Your task to perform on an android device: Show me productivity apps on the Play Store Image 0: 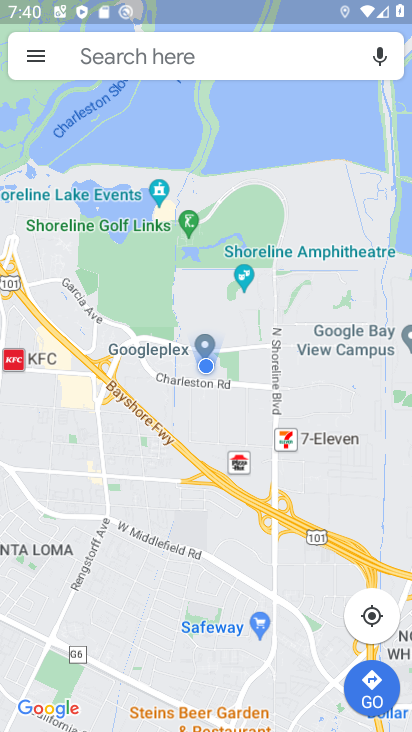
Step 0: press home button
Your task to perform on an android device: Show me productivity apps on the Play Store Image 1: 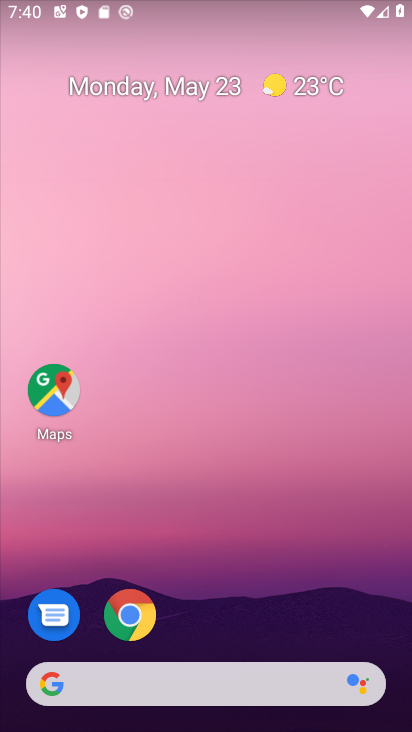
Step 1: drag from (279, 596) to (250, 153)
Your task to perform on an android device: Show me productivity apps on the Play Store Image 2: 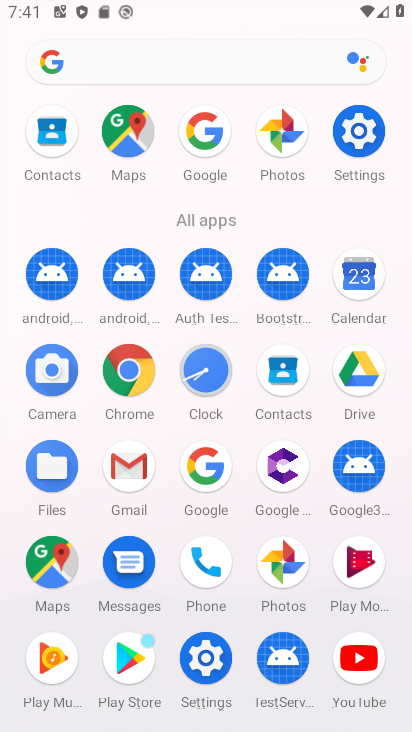
Step 2: click (128, 658)
Your task to perform on an android device: Show me productivity apps on the Play Store Image 3: 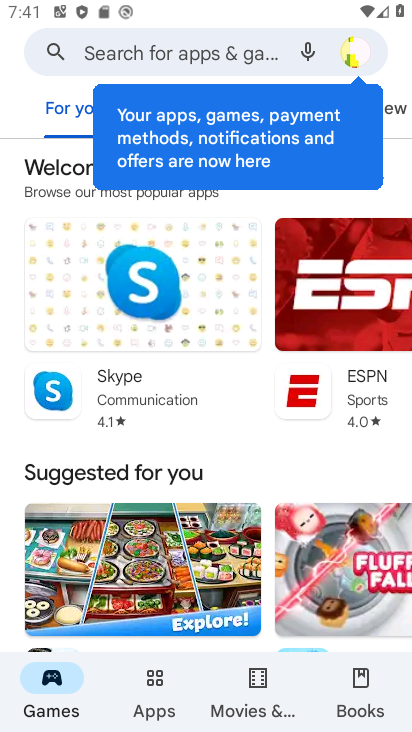
Step 3: click (144, 686)
Your task to perform on an android device: Show me productivity apps on the Play Store Image 4: 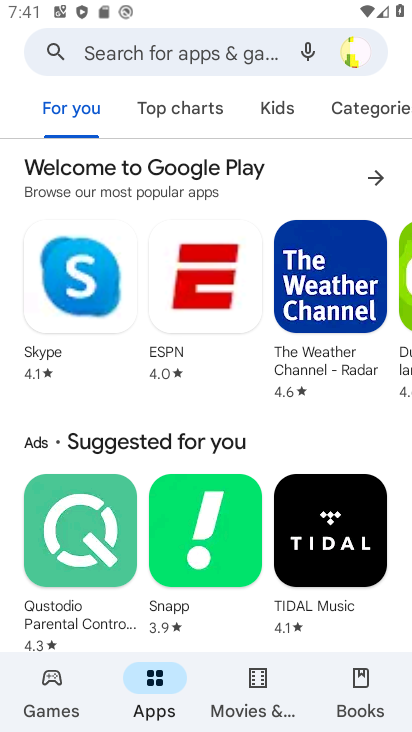
Step 4: click (349, 108)
Your task to perform on an android device: Show me productivity apps on the Play Store Image 5: 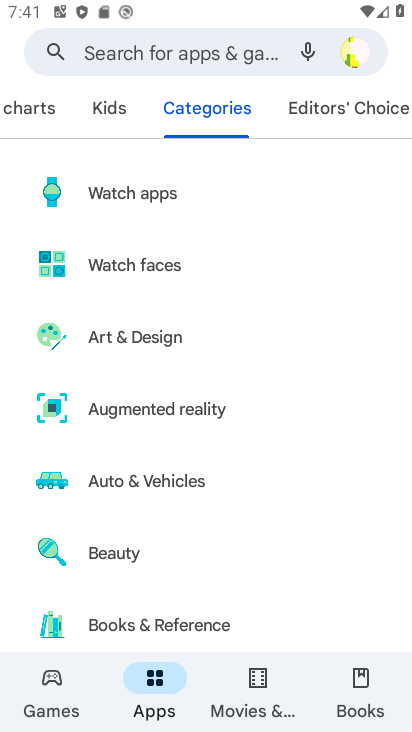
Step 5: drag from (152, 455) to (166, 354)
Your task to perform on an android device: Show me productivity apps on the Play Store Image 6: 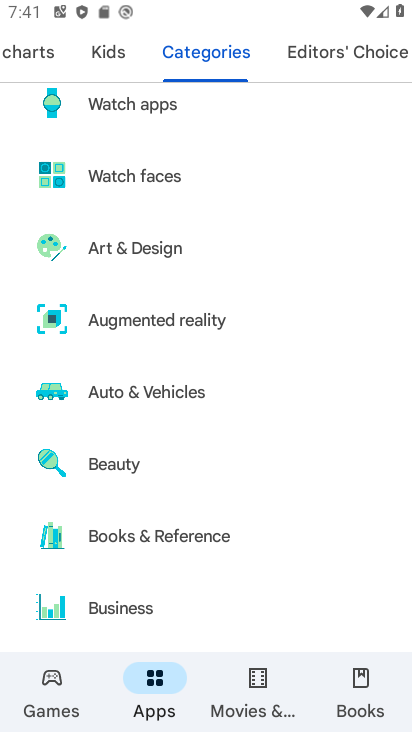
Step 6: drag from (145, 505) to (176, 402)
Your task to perform on an android device: Show me productivity apps on the Play Store Image 7: 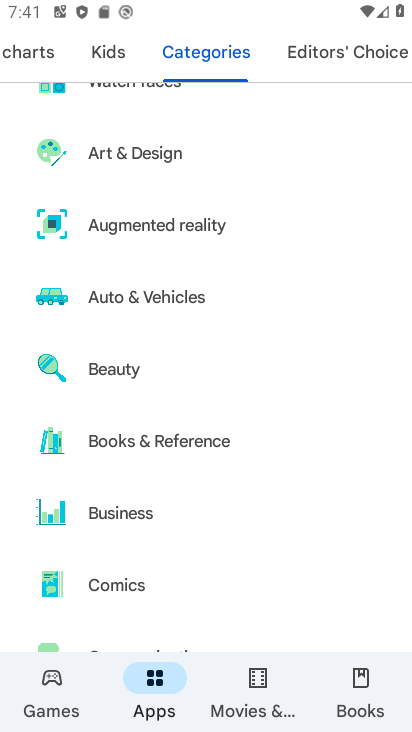
Step 7: drag from (136, 483) to (168, 407)
Your task to perform on an android device: Show me productivity apps on the Play Store Image 8: 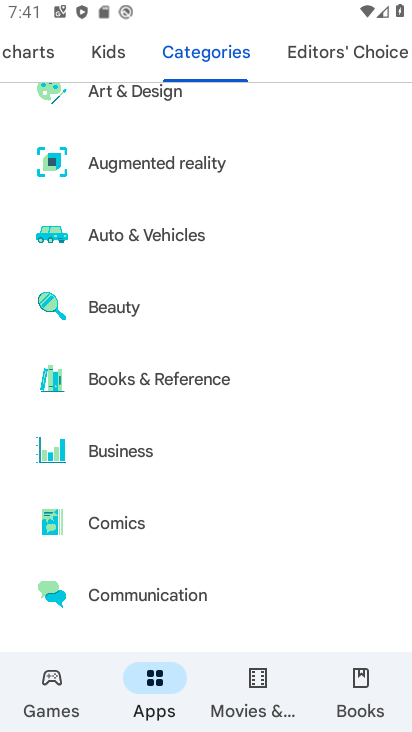
Step 8: drag from (140, 496) to (177, 405)
Your task to perform on an android device: Show me productivity apps on the Play Store Image 9: 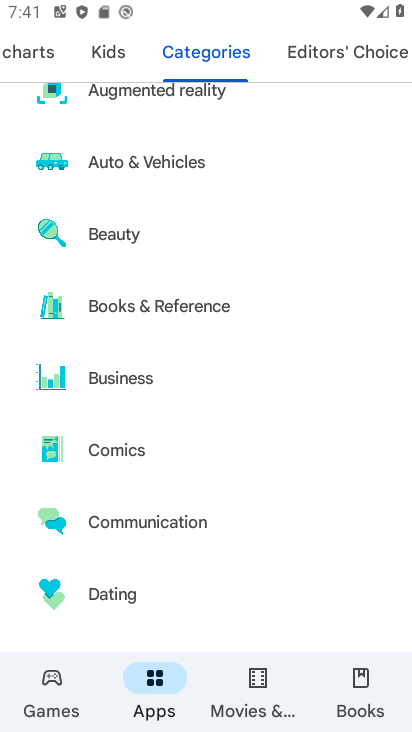
Step 9: drag from (117, 494) to (158, 415)
Your task to perform on an android device: Show me productivity apps on the Play Store Image 10: 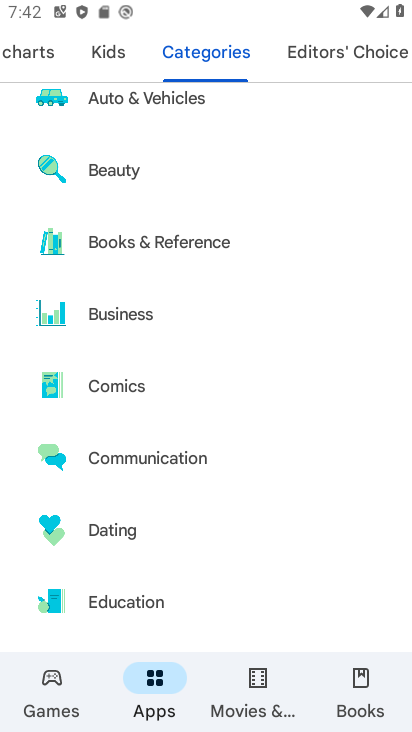
Step 10: drag from (130, 432) to (144, 374)
Your task to perform on an android device: Show me productivity apps on the Play Store Image 11: 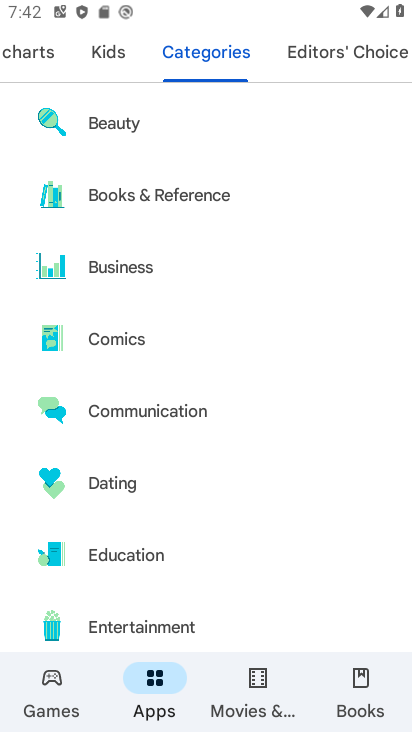
Step 11: drag from (114, 518) to (168, 430)
Your task to perform on an android device: Show me productivity apps on the Play Store Image 12: 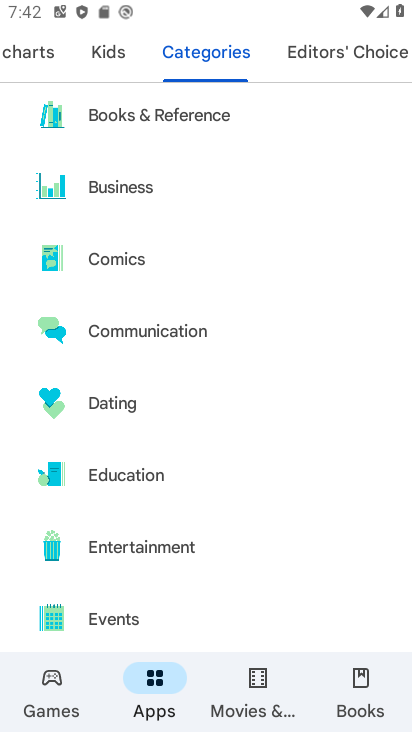
Step 12: drag from (118, 512) to (157, 449)
Your task to perform on an android device: Show me productivity apps on the Play Store Image 13: 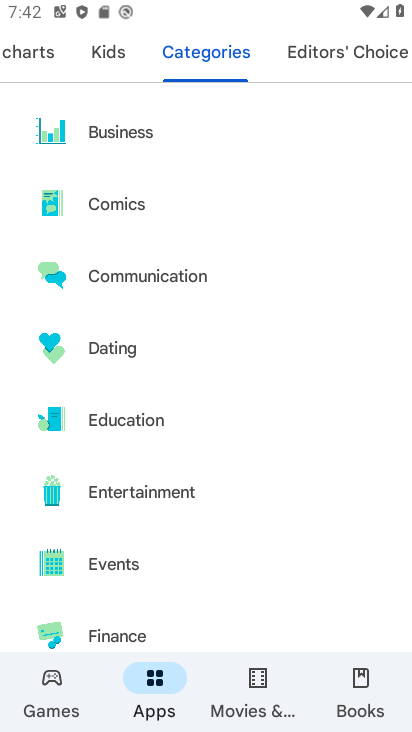
Step 13: drag from (118, 514) to (161, 445)
Your task to perform on an android device: Show me productivity apps on the Play Store Image 14: 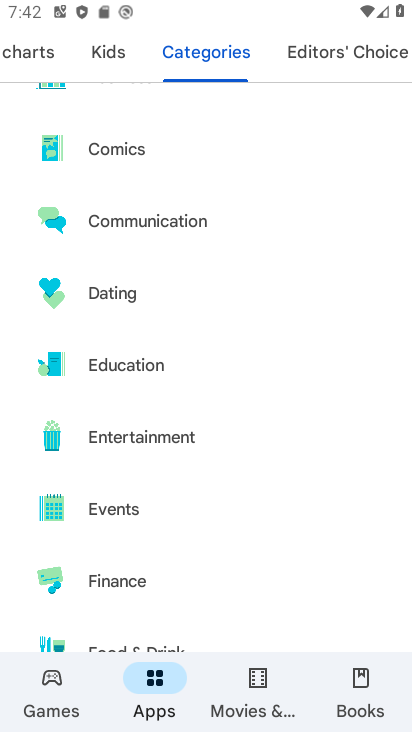
Step 14: drag from (110, 535) to (171, 447)
Your task to perform on an android device: Show me productivity apps on the Play Store Image 15: 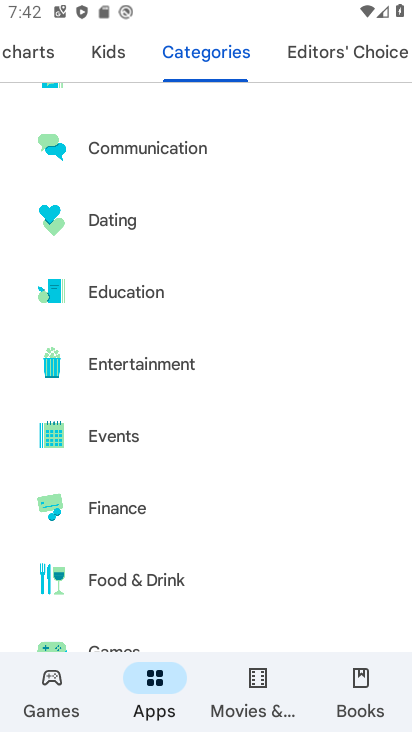
Step 15: drag from (106, 533) to (202, 426)
Your task to perform on an android device: Show me productivity apps on the Play Store Image 16: 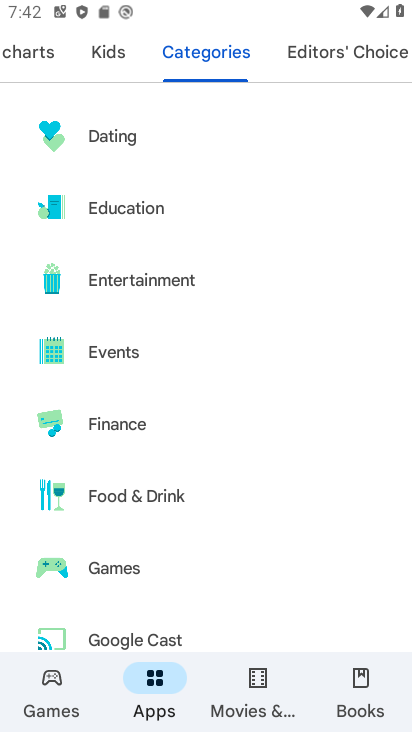
Step 16: drag from (101, 534) to (209, 417)
Your task to perform on an android device: Show me productivity apps on the Play Store Image 17: 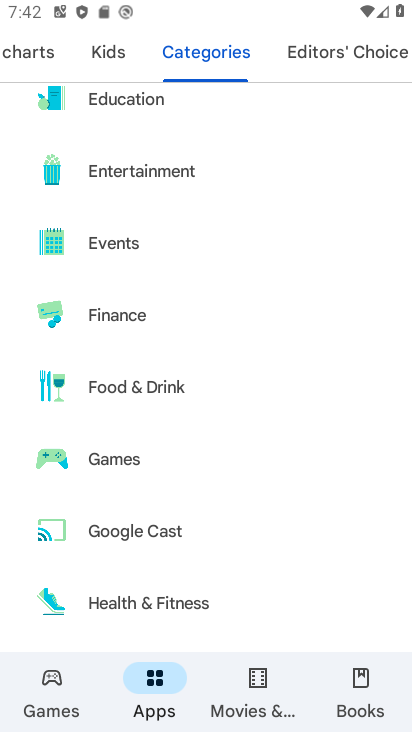
Step 17: drag from (107, 498) to (165, 390)
Your task to perform on an android device: Show me productivity apps on the Play Store Image 18: 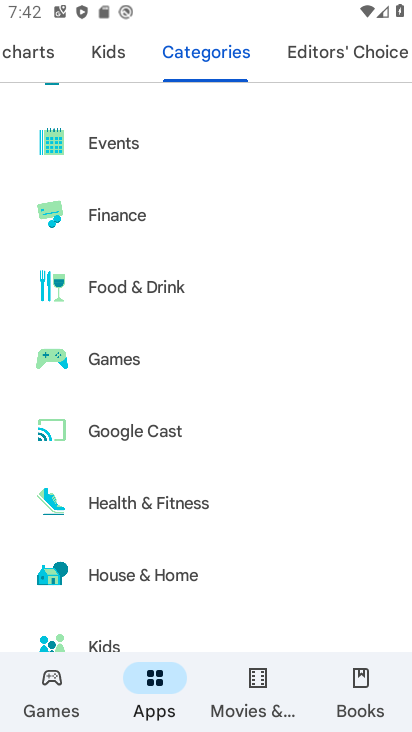
Step 18: drag from (105, 475) to (158, 394)
Your task to perform on an android device: Show me productivity apps on the Play Store Image 19: 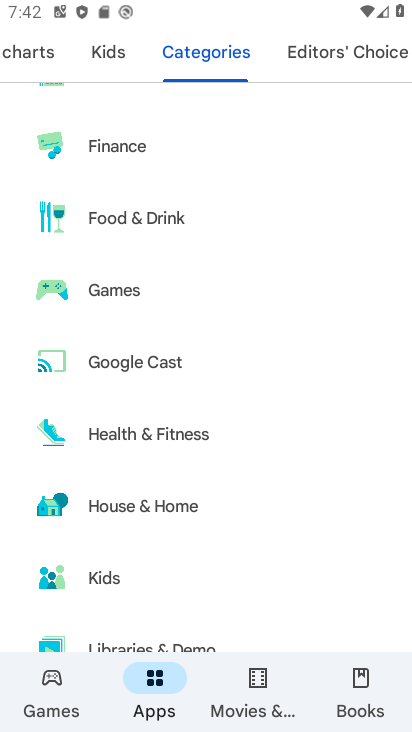
Step 19: drag from (113, 468) to (183, 393)
Your task to perform on an android device: Show me productivity apps on the Play Store Image 20: 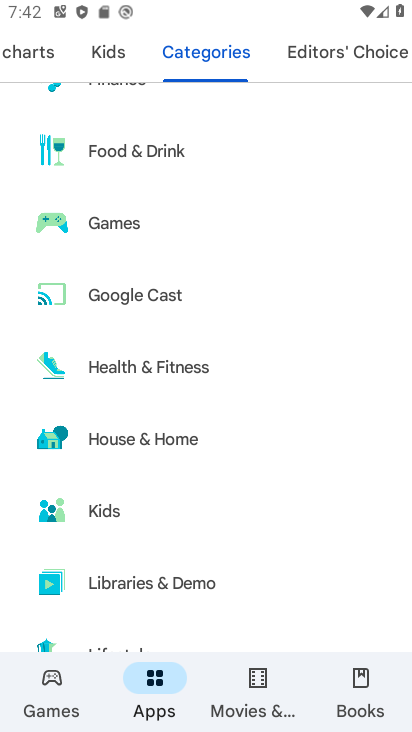
Step 20: drag from (119, 471) to (150, 383)
Your task to perform on an android device: Show me productivity apps on the Play Store Image 21: 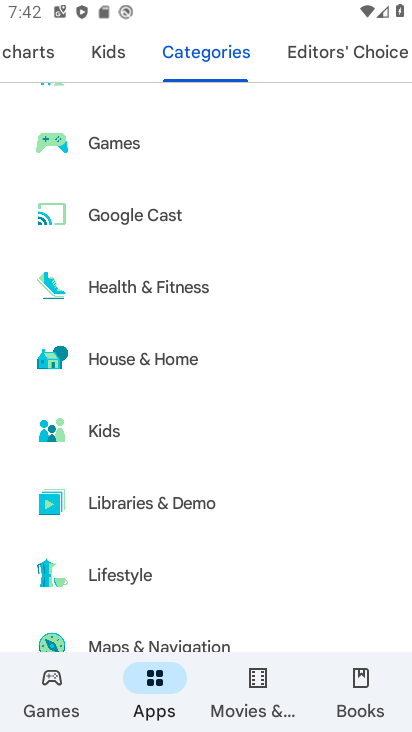
Step 21: drag from (109, 458) to (201, 356)
Your task to perform on an android device: Show me productivity apps on the Play Store Image 22: 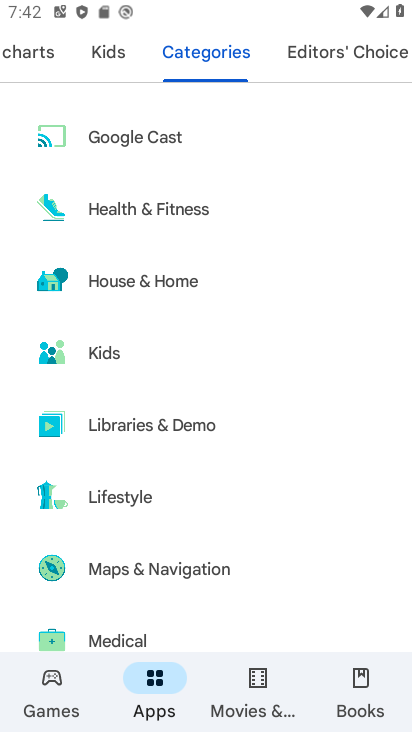
Step 22: drag from (117, 470) to (160, 384)
Your task to perform on an android device: Show me productivity apps on the Play Store Image 23: 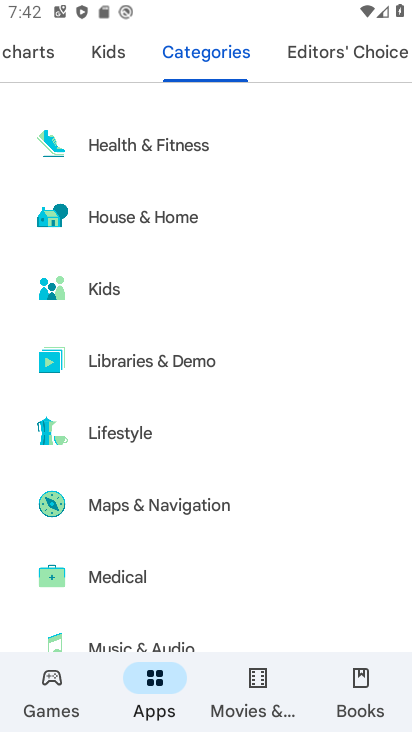
Step 23: drag from (105, 535) to (161, 427)
Your task to perform on an android device: Show me productivity apps on the Play Store Image 24: 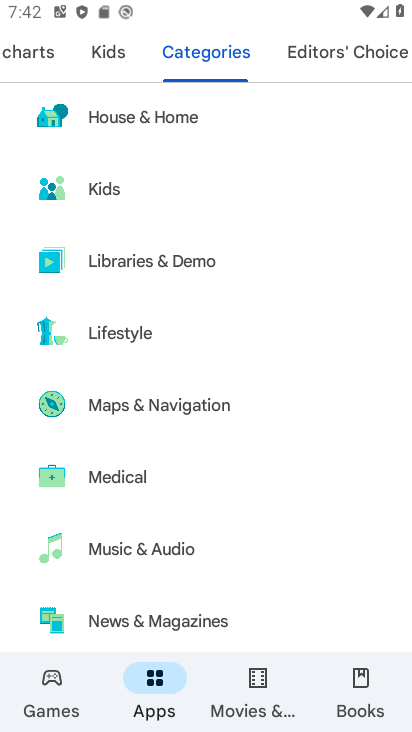
Step 24: drag from (103, 511) to (174, 419)
Your task to perform on an android device: Show me productivity apps on the Play Store Image 25: 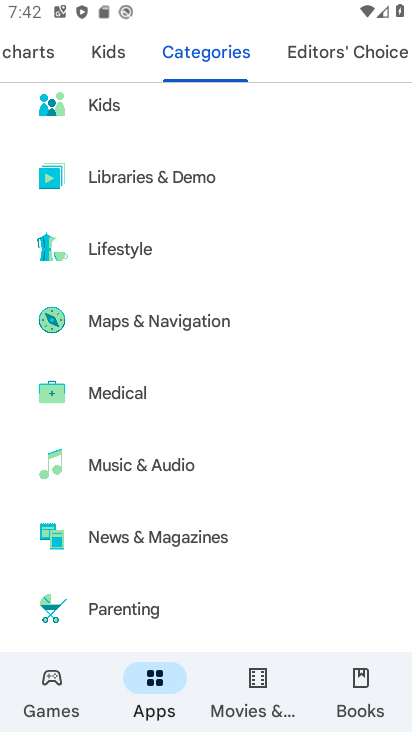
Step 25: drag from (105, 502) to (173, 419)
Your task to perform on an android device: Show me productivity apps on the Play Store Image 26: 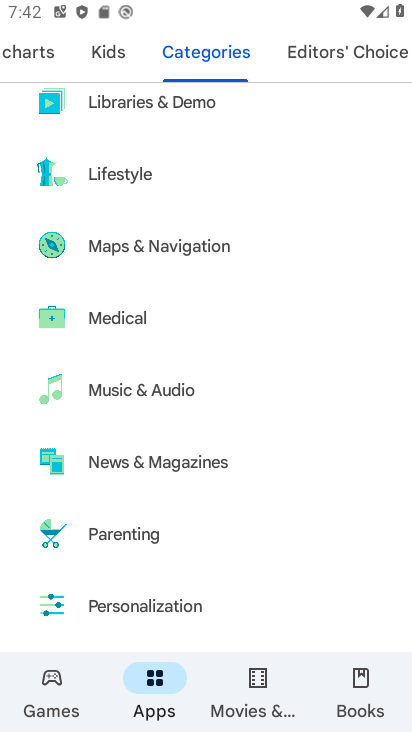
Step 26: drag from (92, 503) to (155, 426)
Your task to perform on an android device: Show me productivity apps on the Play Store Image 27: 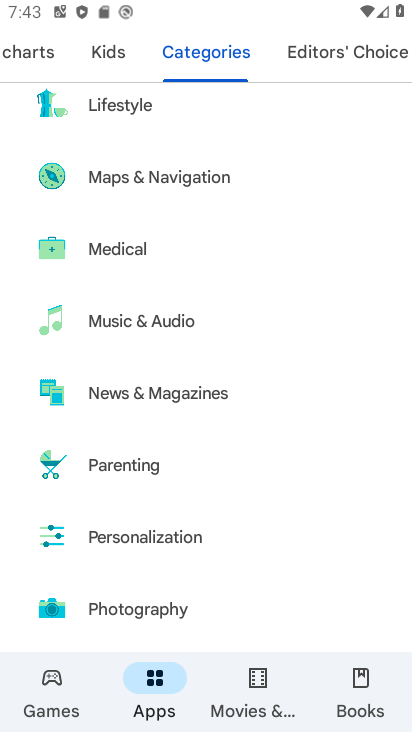
Step 27: drag from (144, 518) to (214, 420)
Your task to perform on an android device: Show me productivity apps on the Play Store Image 28: 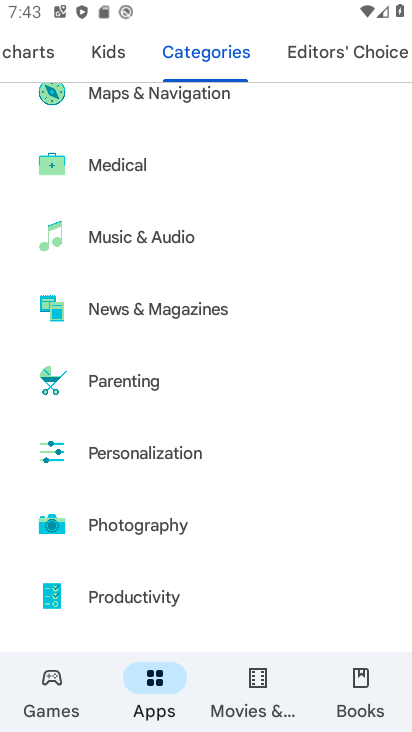
Step 28: click (152, 596)
Your task to perform on an android device: Show me productivity apps on the Play Store Image 29: 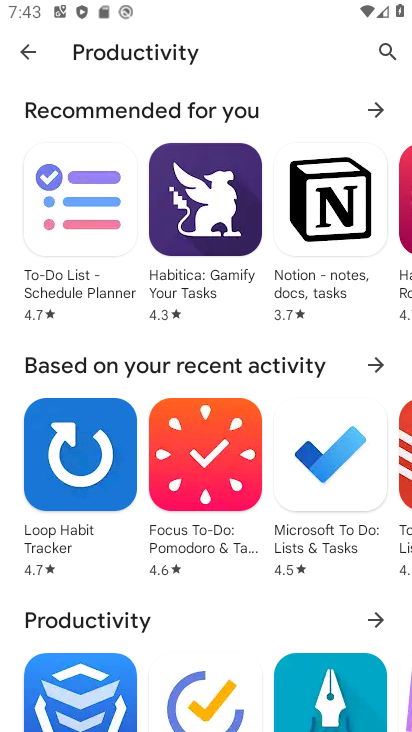
Step 29: task complete